Your task to perform on an android device: turn on the 24-hour format for clock Image 0: 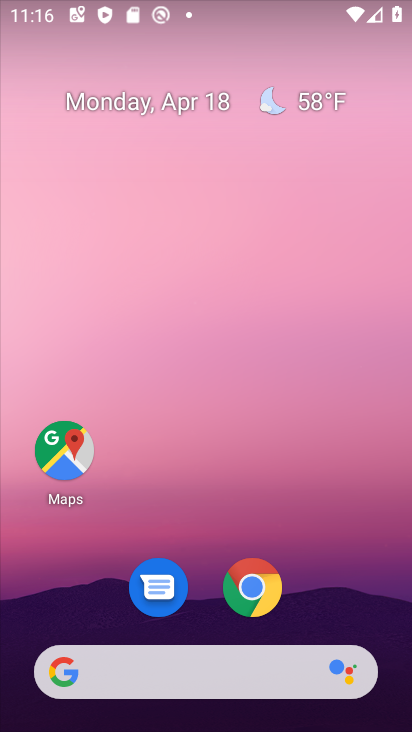
Step 0: drag from (173, 625) to (336, 13)
Your task to perform on an android device: turn on the 24-hour format for clock Image 1: 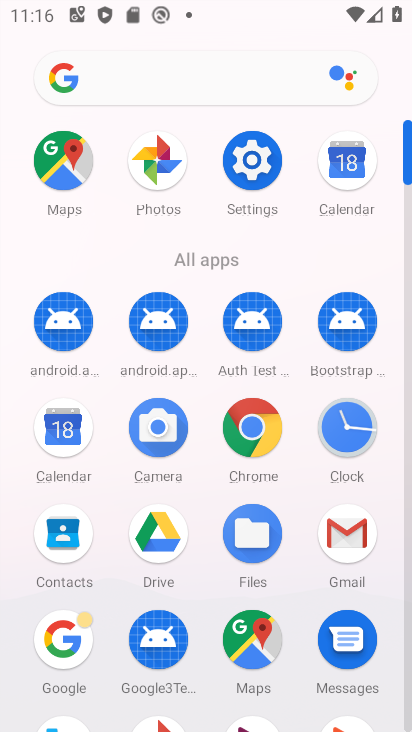
Step 1: click (356, 429)
Your task to perform on an android device: turn on the 24-hour format for clock Image 2: 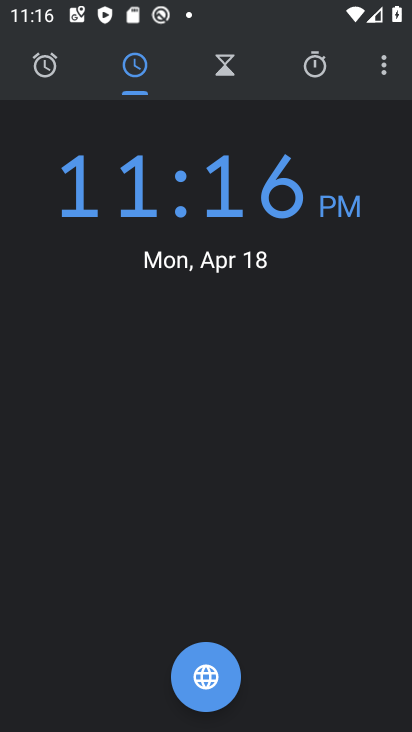
Step 2: click (388, 72)
Your task to perform on an android device: turn on the 24-hour format for clock Image 3: 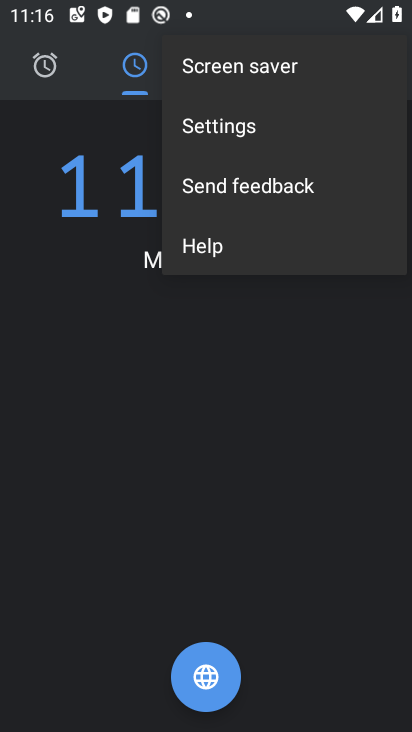
Step 3: click (279, 142)
Your task to perform on an android device: turn on the 24-hour format for clock Image 4: 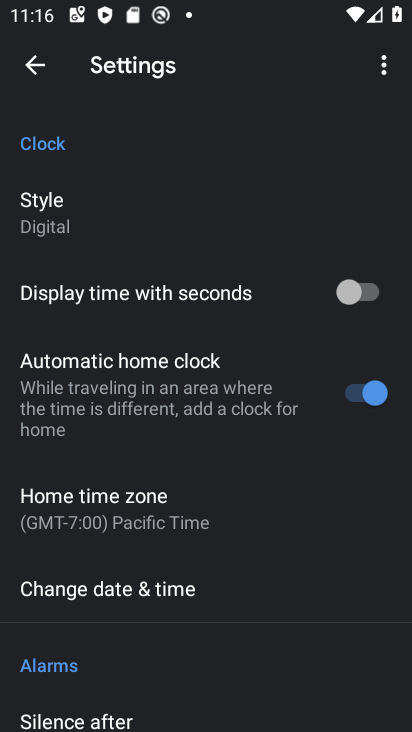
Step 4: click (214, 579)
Your task to perform on an android device: turn on the 24-hour format for clock Image 5: 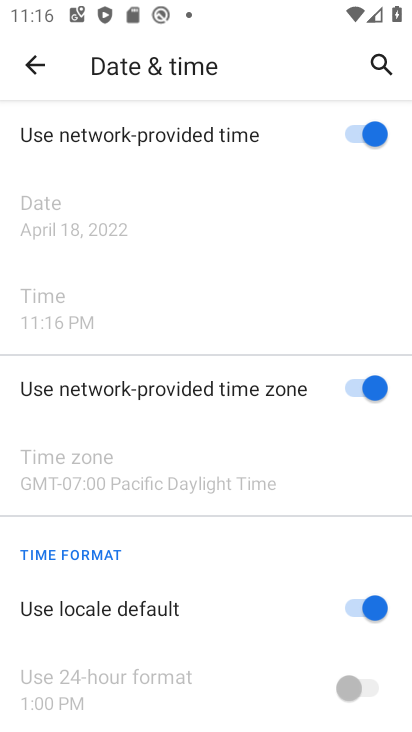
Step 5: drag from (189, 542) to (282, 272)
Your task to perform on an android device: turn on the 24-hour format for clock Image 6: 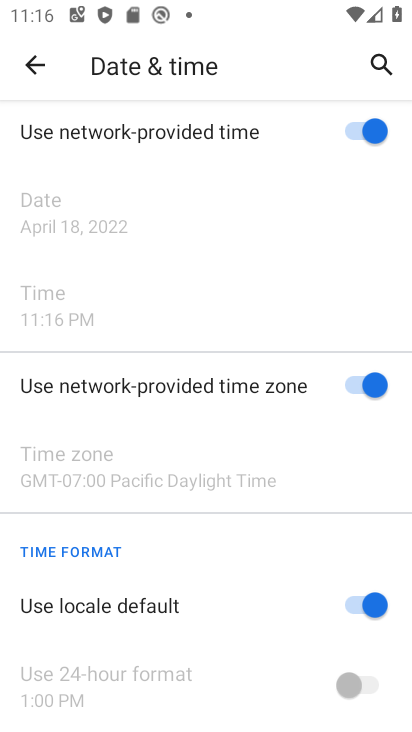
Step 6: click (361, 606)
Your task to perform on an android device: turn on the 24-hour format for clock Image 7: 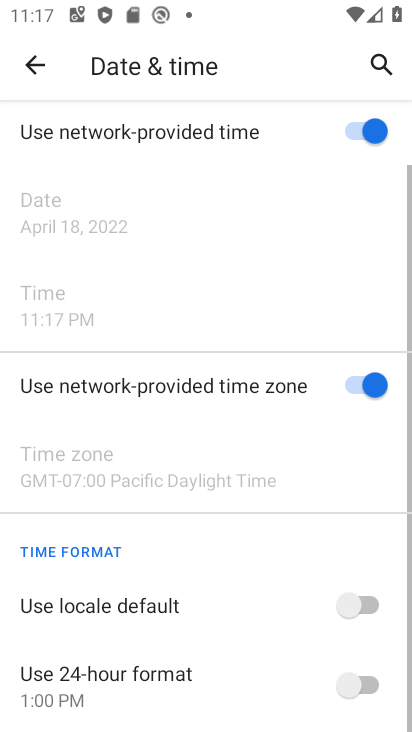
Step 7: click (377, 681)
Your task to perform on an android device: turn on the 24-hour format for clock Image 8: 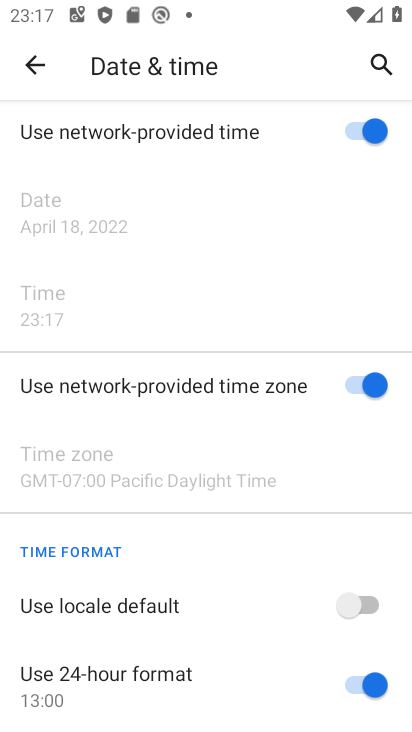
Step 8: task complete